Your task to perform on an android device: Go to display settings Image 0: 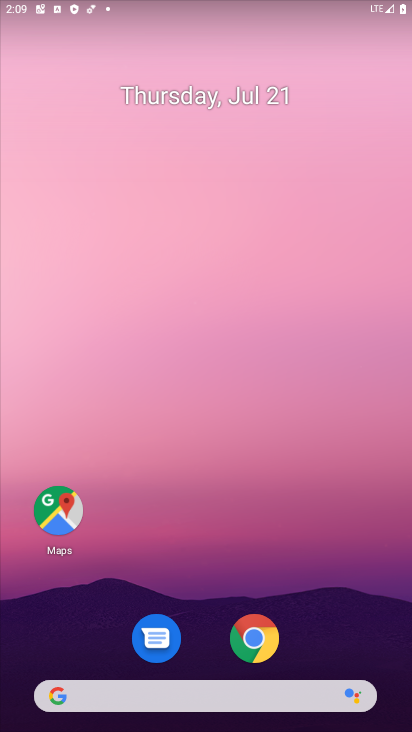
Step 0: drag from (0, 0) to (170, 162)
Your task to perform on an android device: Go to display settings Image 1: 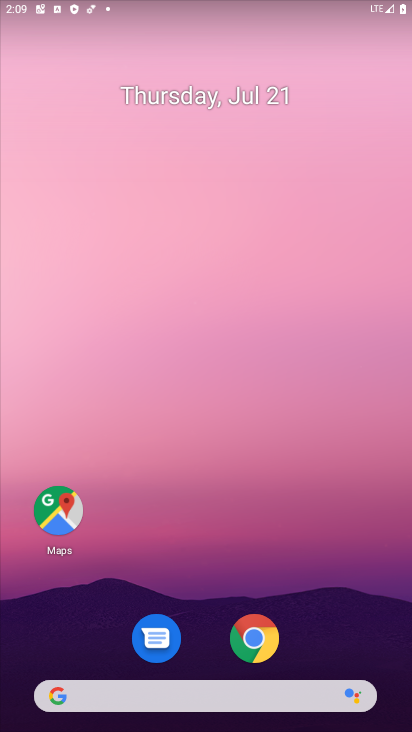
Step 1: drag from (271, 721) to (291, 147)
Your task to perform on an android device: Go to display settings Image 2: 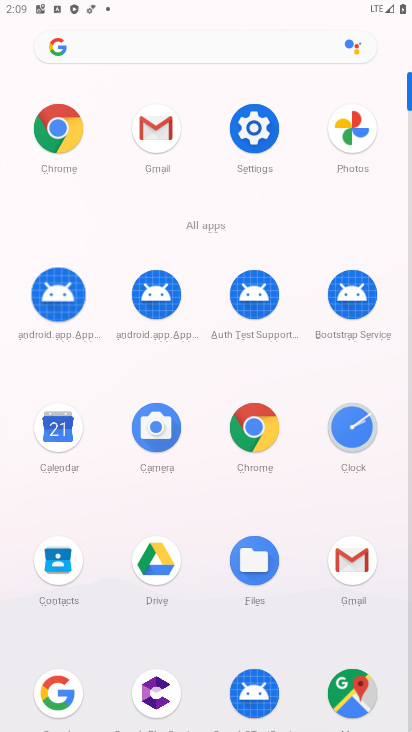
Step 2: click (248, 135)
Your task to perform on an android device: Go to display settings Image 3: 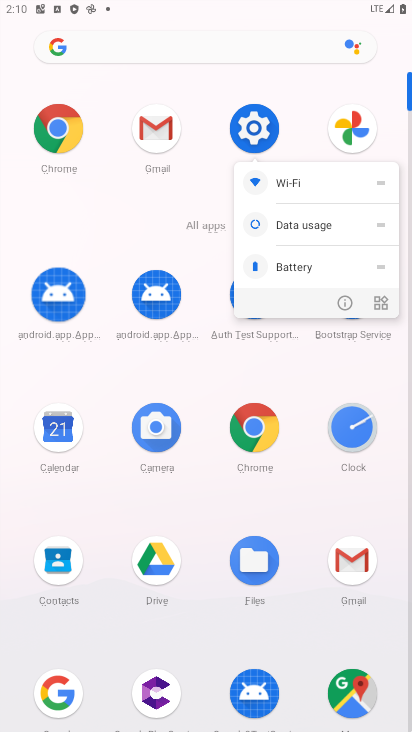
Step 3: click (259, 140)
Your task to perform on an android device: Go to display settings Image 4: 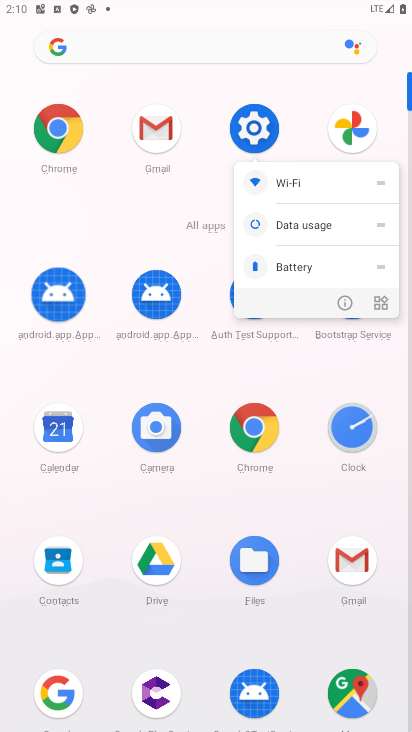
Step 4: click (259, 140)
Your task to perform on an android device: Go to display settings Image 5: 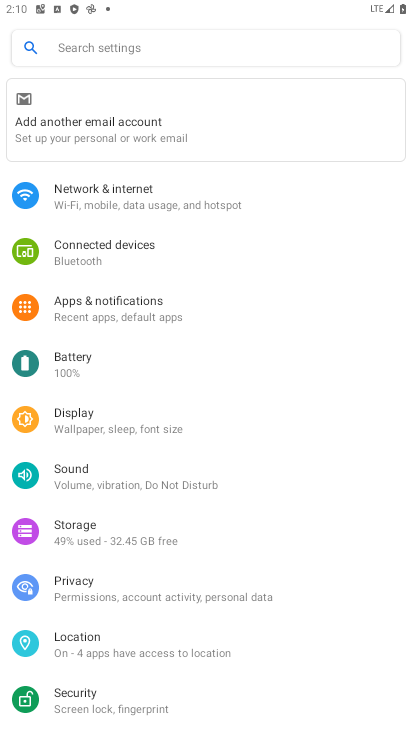
Step 5: click (96, 431)
Your task to perform on an android device: Go to display settings Image 6: 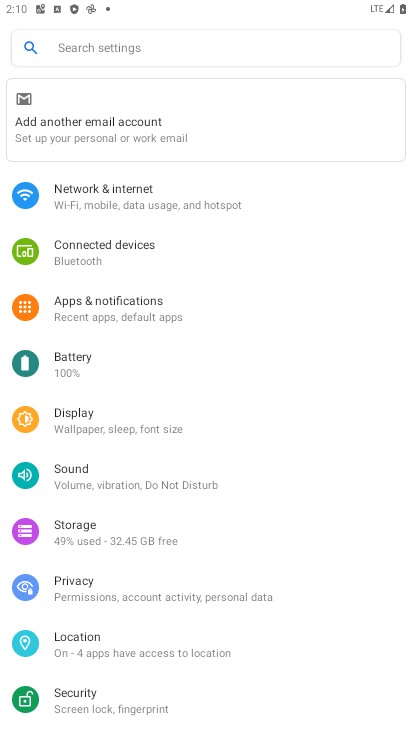
Step 6: click (96, 431)
Your task to perform on an android device: Go to display settings Image 7: 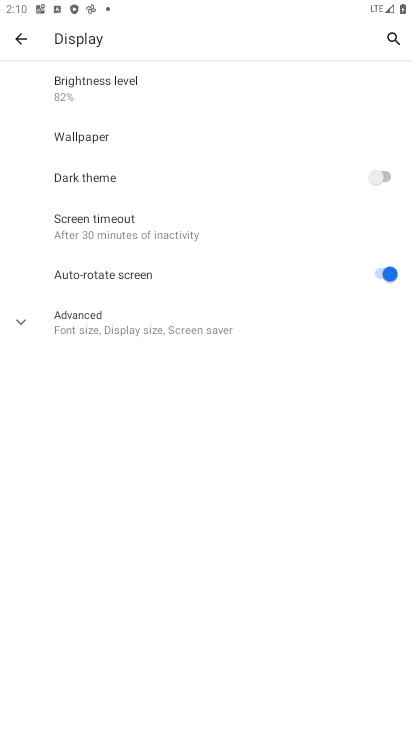
Step 7: task complete